Your task to perform on an android device: Open Chrome and go to settings Image 0: 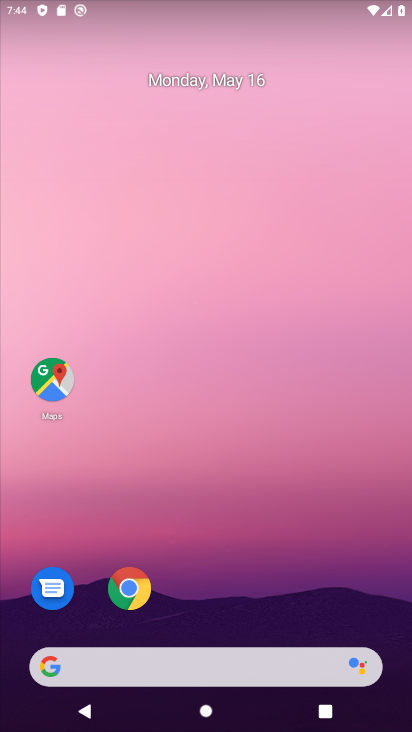
Step 0: click (123, 592)
Your task to perform on an android device: Open Chrome and go to settings Image 1: 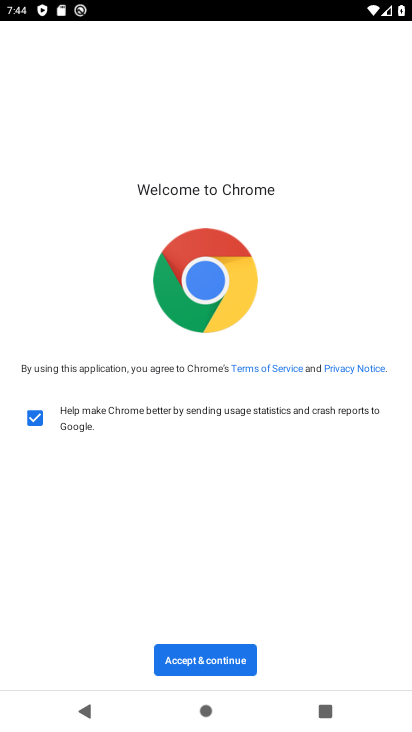
Step 1: click (197, 654)
Your task to perform on an android device: Open Chrome and go to settings Image 2: 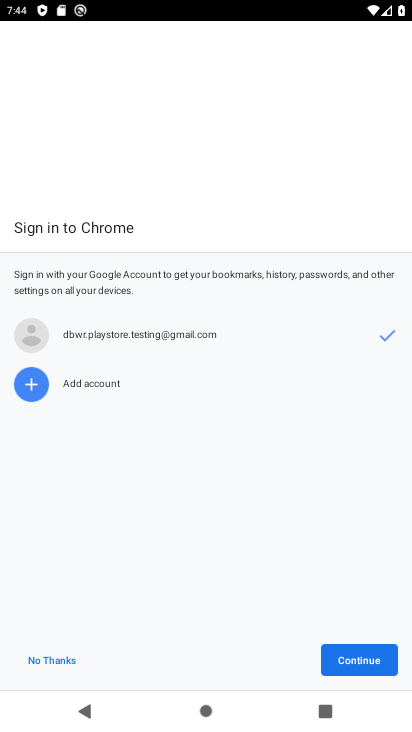
Step 2: click (351, 660)
Your task to perform on an android device: Open Chrome and go to settings Image 3: 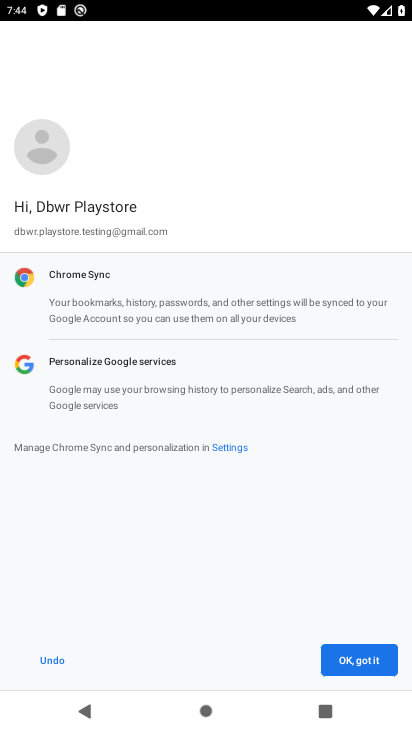
Step 3: click (350, 658)
Your task to perform on an android device: Open Chrome and go to settings Image 4: 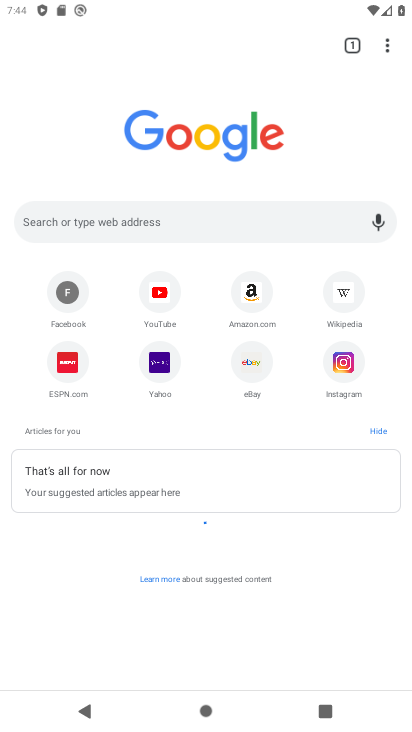
Step 4: click (384, 42)
Your task to perform on an android device: Open Chrome and go to settings Image 5: 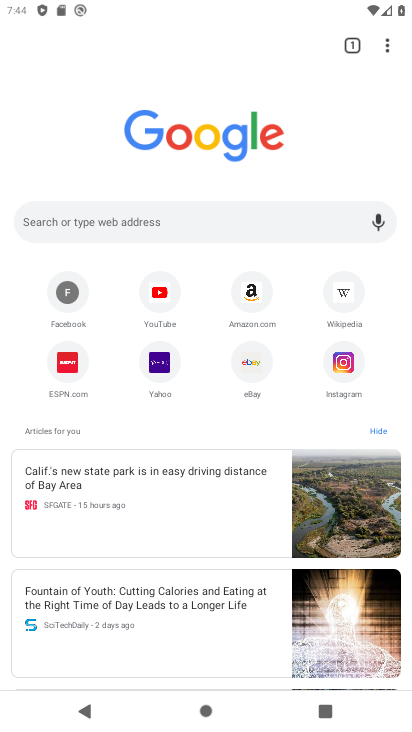
Step 5: task complete